Your task to perform on an android device: Open accessibility settings Image 0: 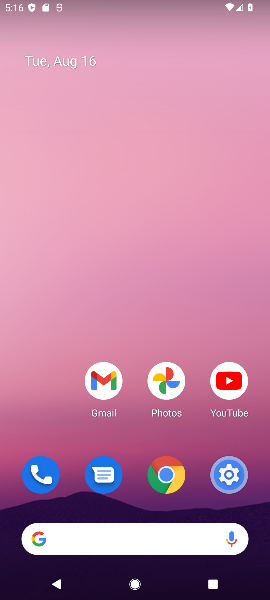
Step 0: drag from (204, 459) to (32, 11)
Your task to perform on an android device: Open accessibility settings Image 1: 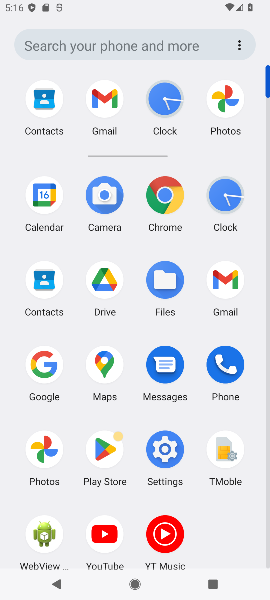
Step 1: click (164, 462)
Your task to perform on an android device: Open accessibility settings Image 2: 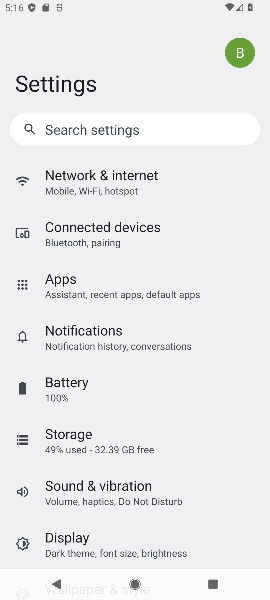
Step 2: drag from (126, 530) to (152, 135)
Your task to perform on an android device: Open accessibility settings Image 3: 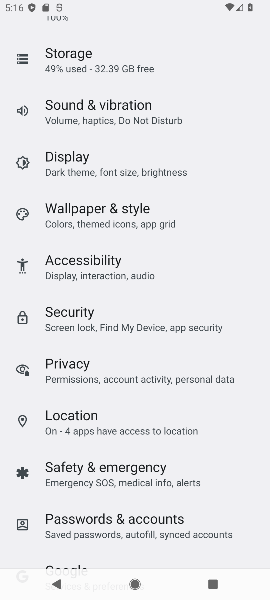
Step 3: click (70, 263)
Your task to perform on an android device: Open accessibility settings Image 4: 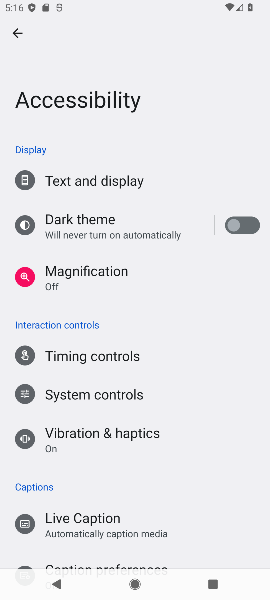
Step 4: task complete